Your task to perform on an android device: Go to eBay Image 0: 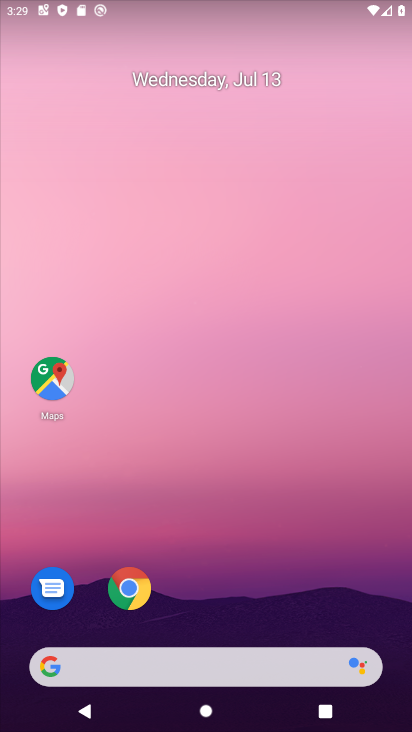
Step 0: drag from (256, 711) to (231, 258)
Your task to perform on an android device: Go to eBay Image 1: 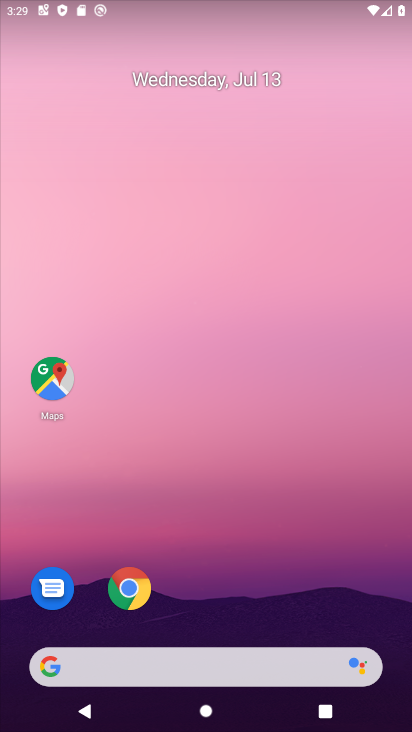
Step 1: drag from (291, 630) to (280, 293)
Your task to perform on an android device: Go to eBay Image 2: 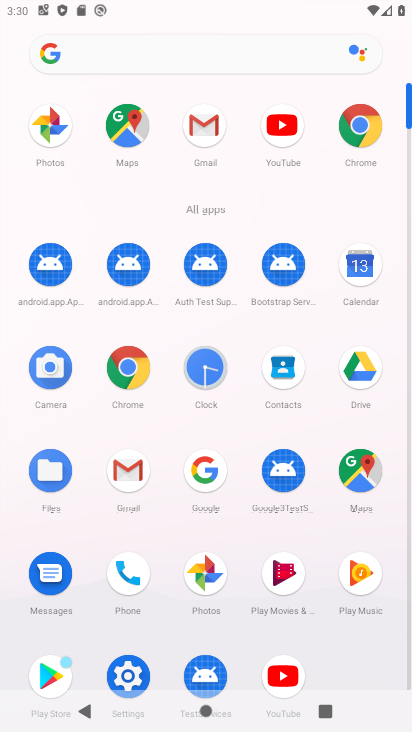
Step 2: click (359, 124)
Your task to perform on an android device: Go to eBay Image 3: 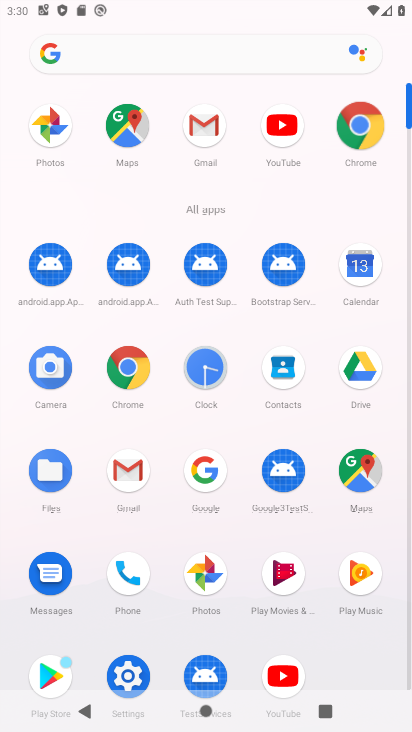
Step 3: click (359, 124)
Your task to perform on an android device: Go to eBay Image 4: 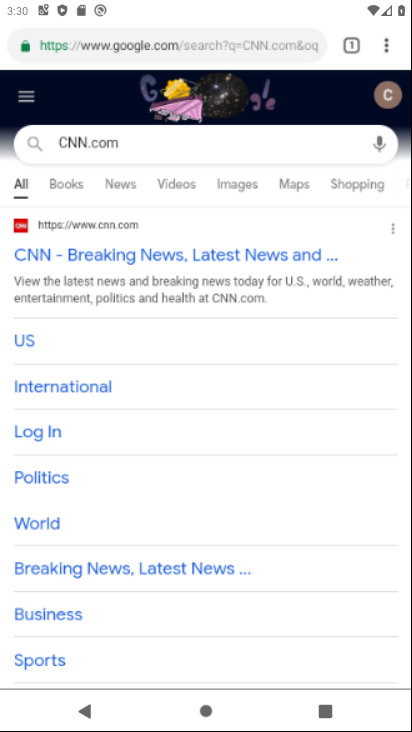
Step 4: click (359, 124)
Your task to perform on an android device: Go to eBay Image 5: 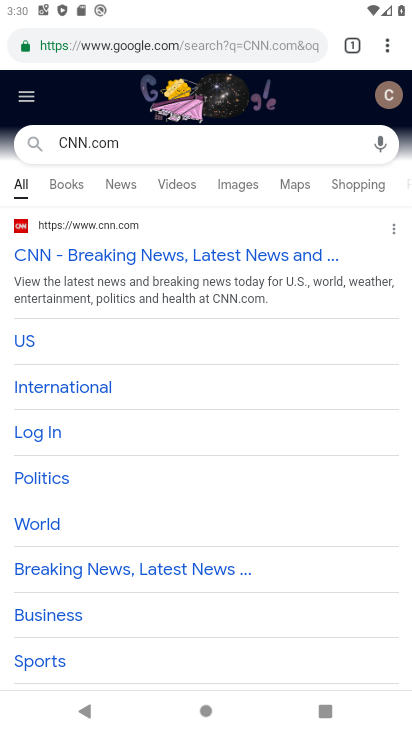
Step 5: drag from (382, 45) to (218, 141)
Your task to perform on an android device: Go to eBay Image 6: 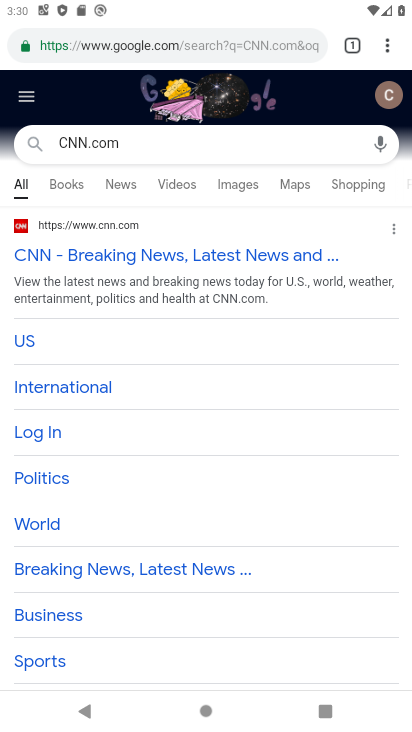
Step 6: click (218, 141)
Your task to perform on an android device: Go to eBay Image 7: 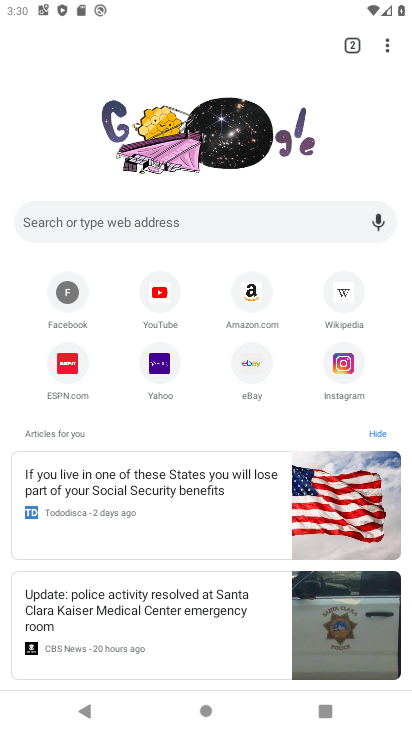
Step 7: click (246, 359)
Your task to perform on an android device: Go to eBay Image 8: 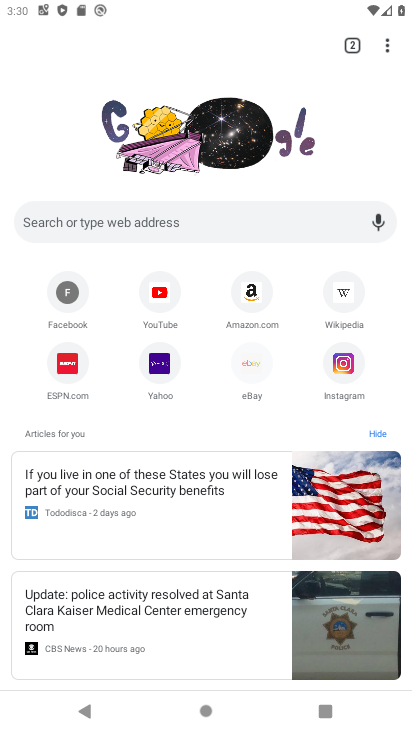
Step 8: click (247, 357)
Your task to perform on an android device: Go to eBay Image 9: 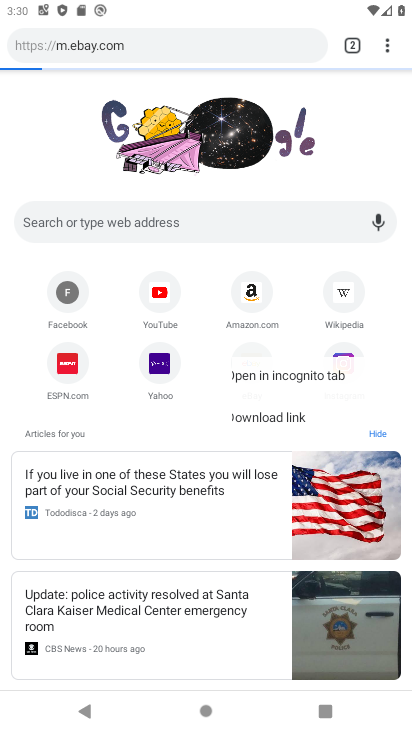
Step 9: click (247, 357)
Your task to perform on an android device: Go to eBay Image 10: 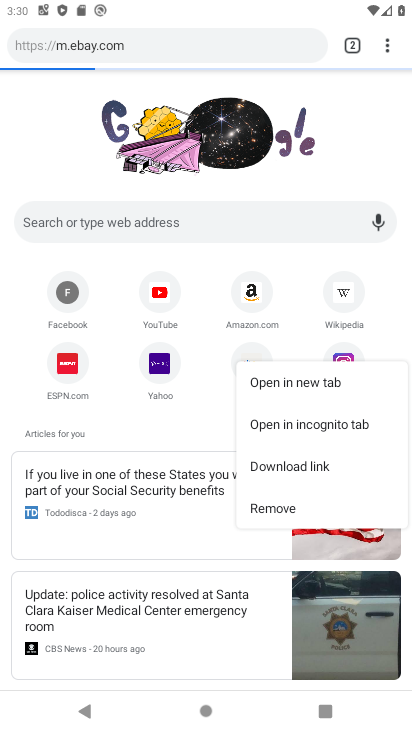
Step 10: click (247, 357)
Your task to perform on an android device: Go to eBay Image 11: 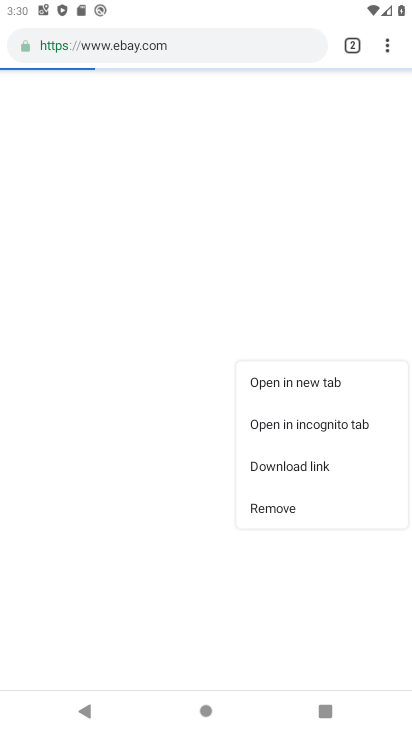
Step 11: click (247, 357)
Your task to perform on an android device: Go to eBay Image 12: 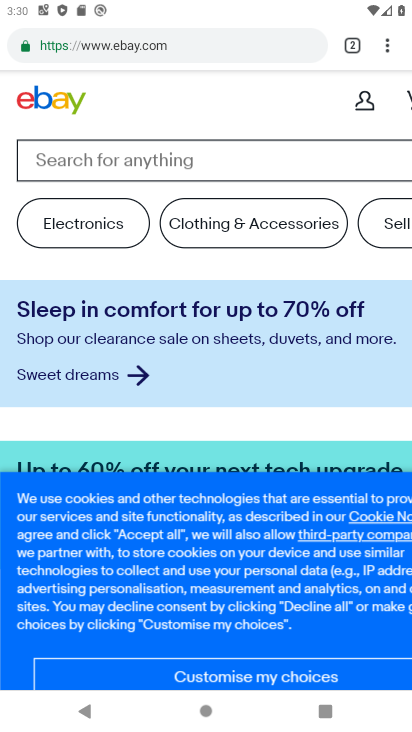
Step 12: task complete